Your task to perform on an android device: refresh tabs in the chrome app Image 0: 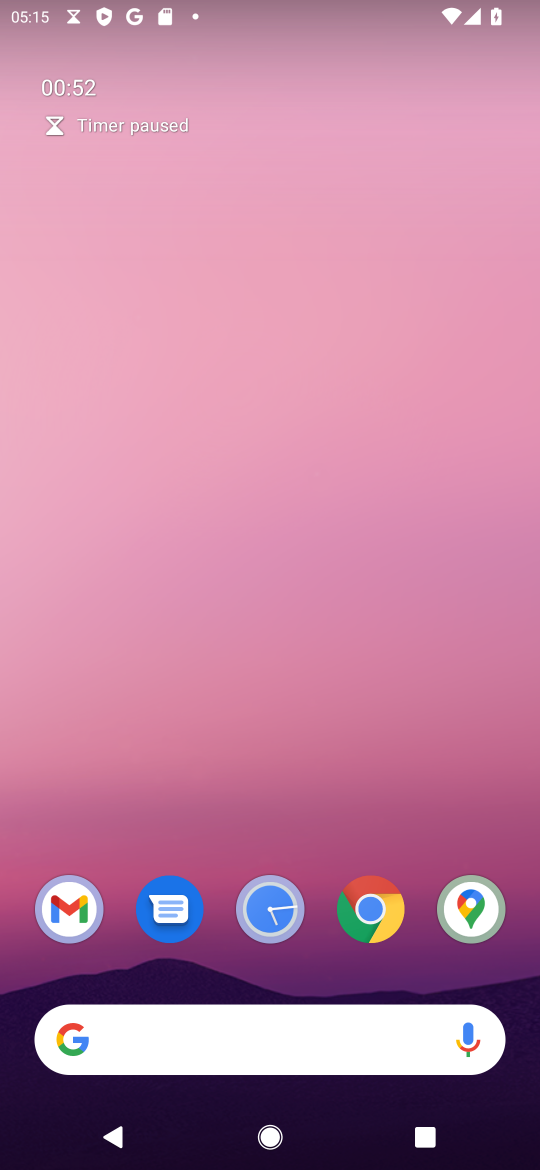
Step 0: click (364, 909)
Your task to perform on an android device: refresh tabs in the chrome app Image 1: 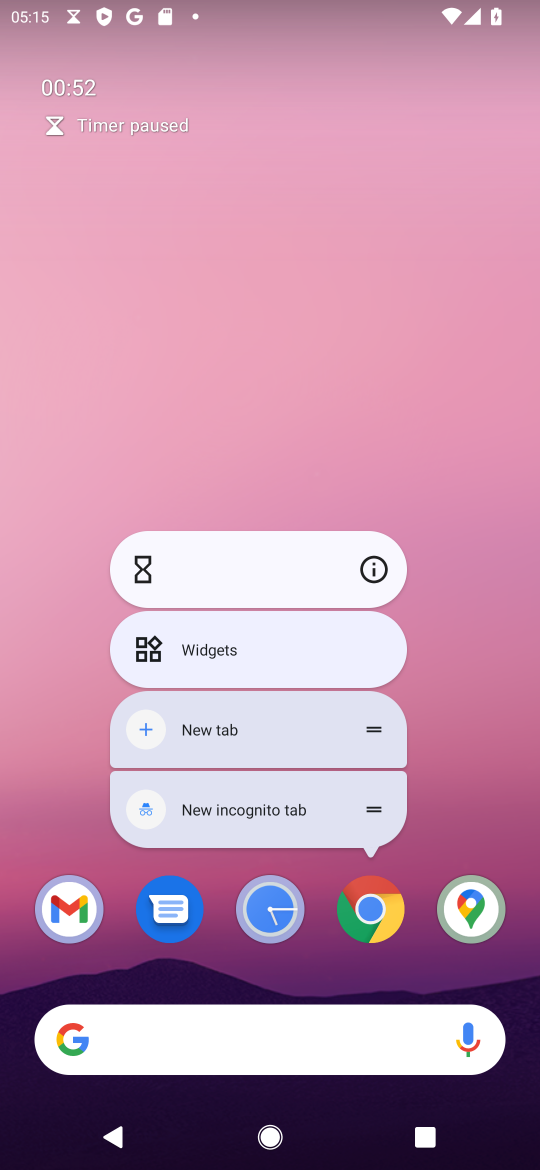
Step 1: click (366, 911)
Your task to perform on an android device: refresh tabs in the chrome app Image 2: 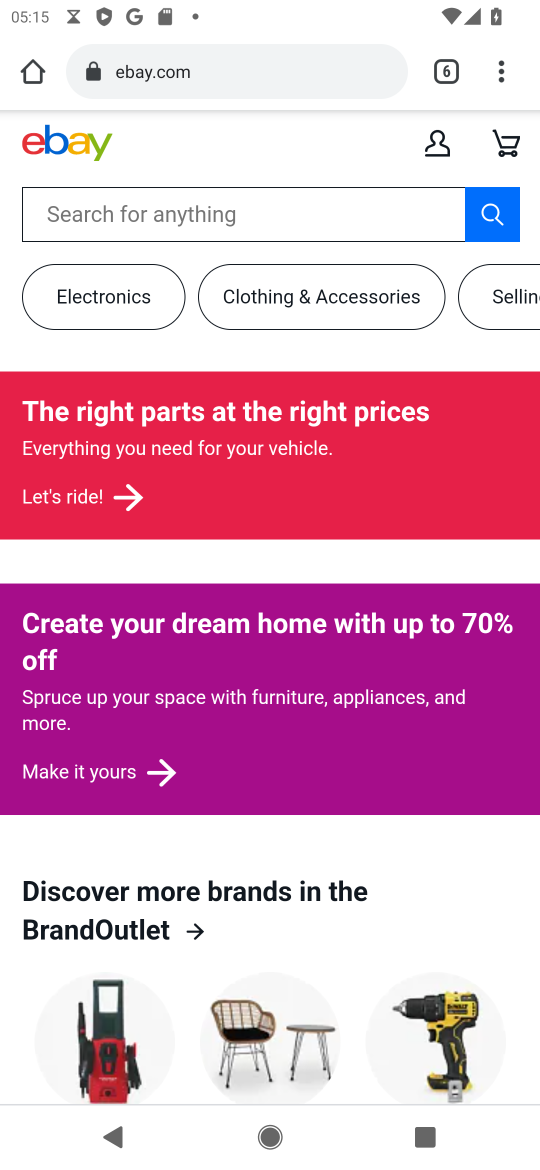
Step 2: click (497, 89)
Your task to perform on an android device: refresh tabs in the chrome app Image 3: 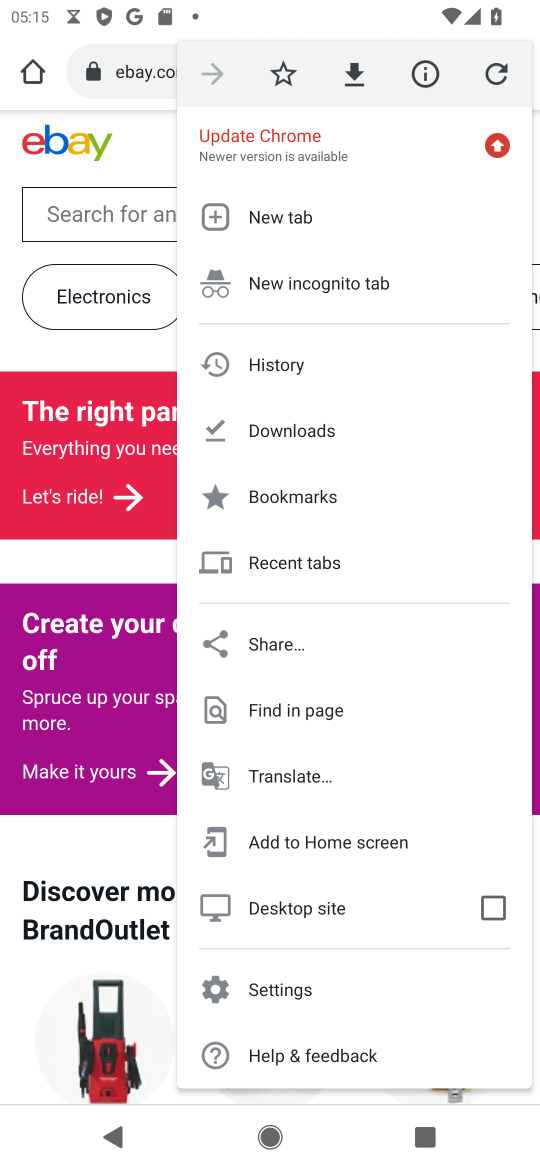
Step 3: click (489, 63)
Your task to perform on an android device: refresh tabs in the chrome app Image 4: 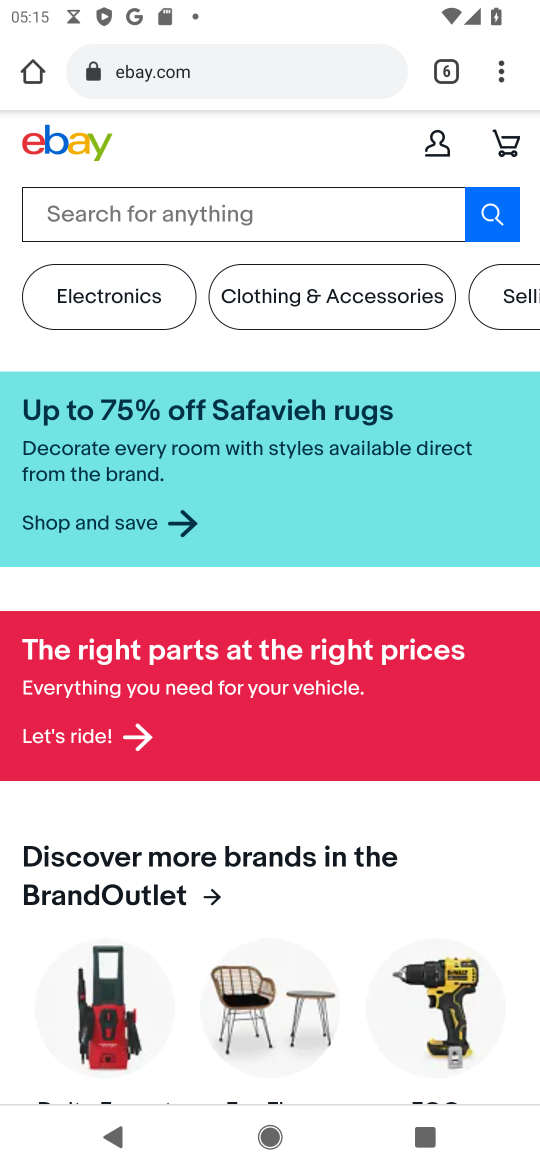
Step 4: task complete